Your task to perform on an android device: change notifications settings Image 0: 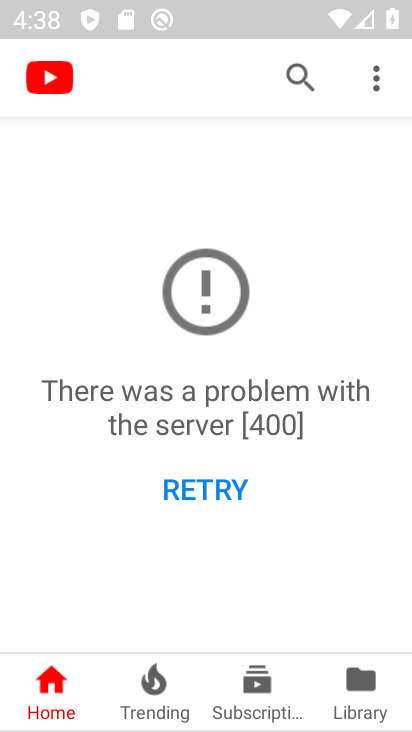
Step 0: press home button
Your task to perform on an android device: change notifications settings Image 1: 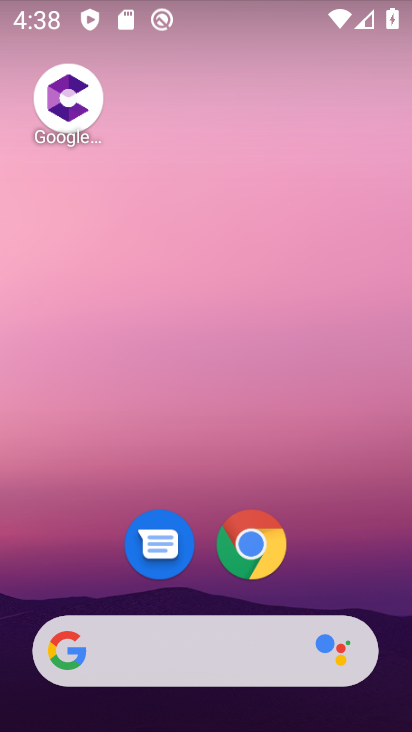
Step 1: drag from (389, 695) to (363, 162)
Your task to perform on an android device: change notifications settings Image 2: 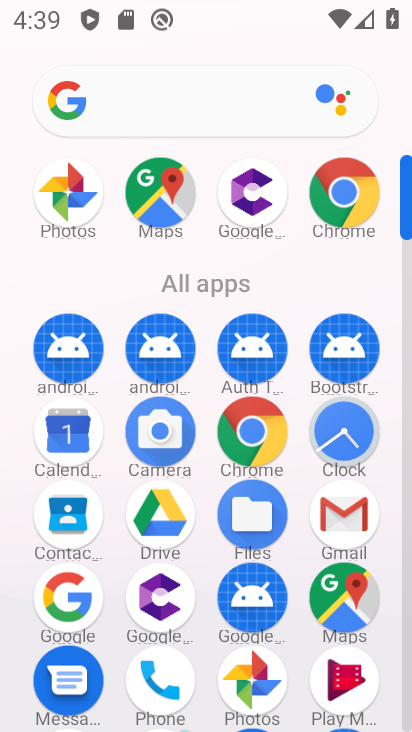
Step 2: drag from (197, 650) to (193, 320)
Your task to perform on an android device: change notifications settings Image 3: 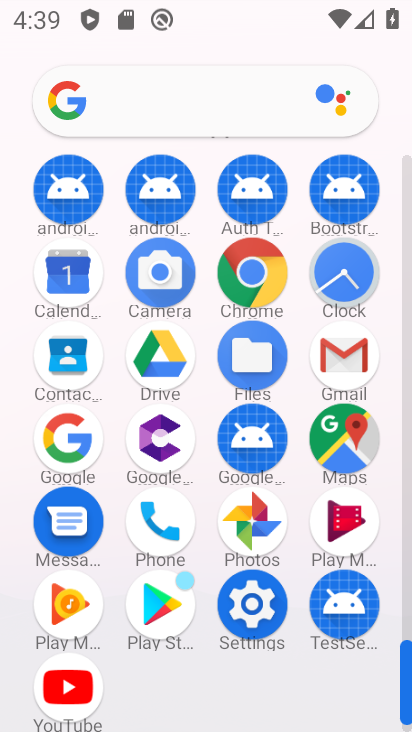
Step 3: click (253, 617)
Your task to perform on an android device: change notifications settings Image 4: 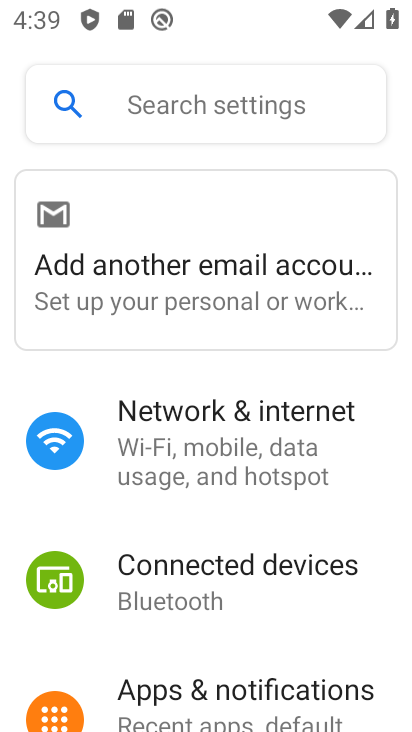
Step 4: click (211, 697)
Your task to perform on an android device: change notifications settings Image 5: 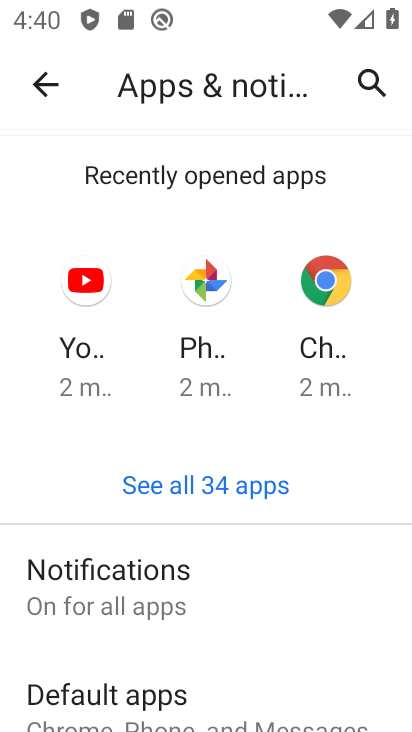
Step 5: click (143, 584)
Your task to perform on an android device: change notifications settings Image 6: 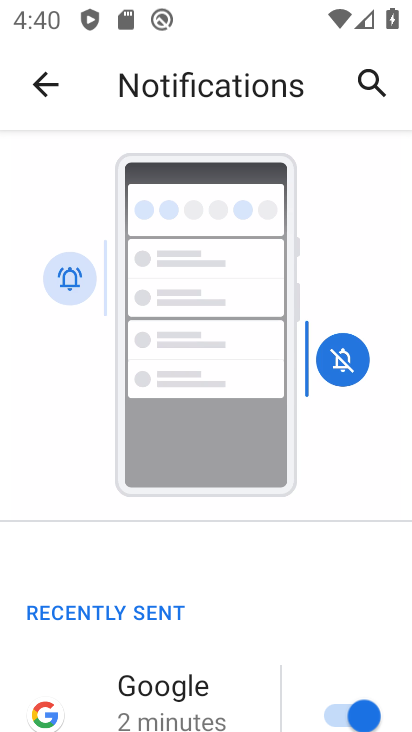
Step 6: drag from (237, 657) to (210, 321)
Your task to perform on an android device: change notifications settings Image 7: 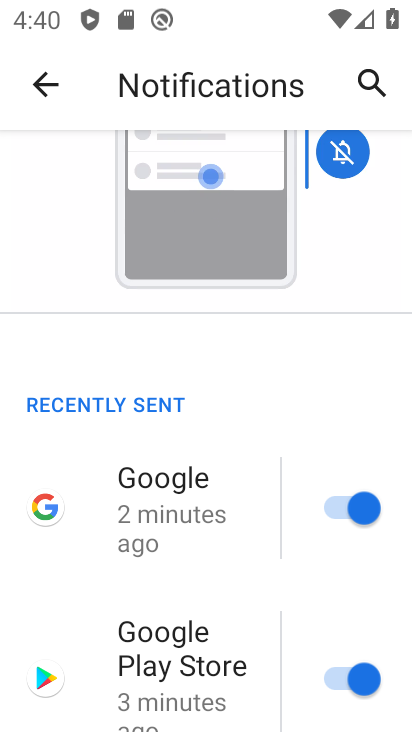
Step 7: drag from (231, 520) to (229, 402)
Your task to perform on an android device: change notifications settings Image 8: 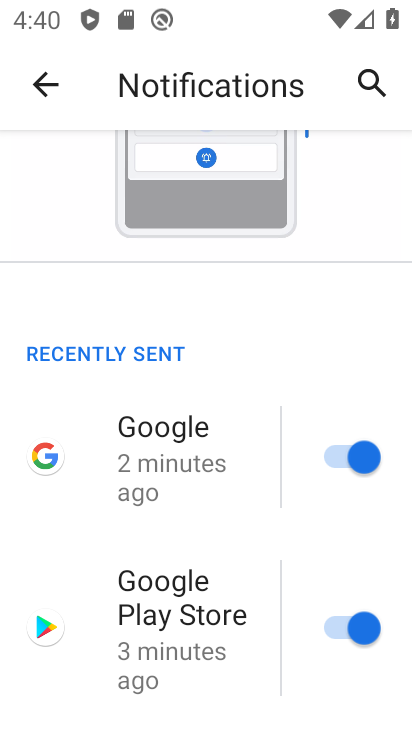
Step 8: drag from (243, 670) to (215, 299)
Your task to perform on an android device: change notifications settings Image 9: 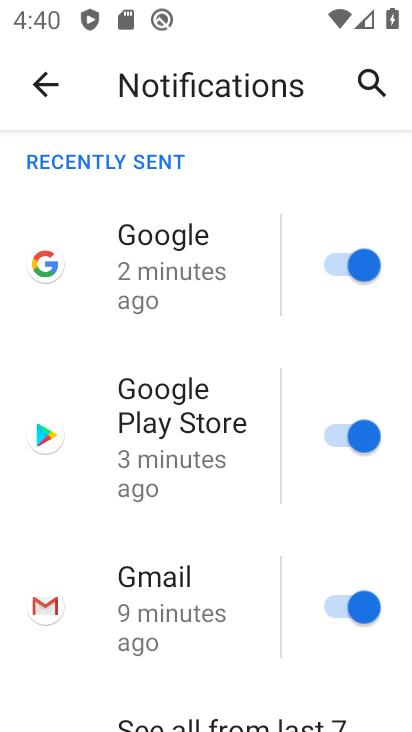
Step 9: drag from (225, 673) to (193, 320)
Your task to perform on an android device: change notifications settings Image 10: 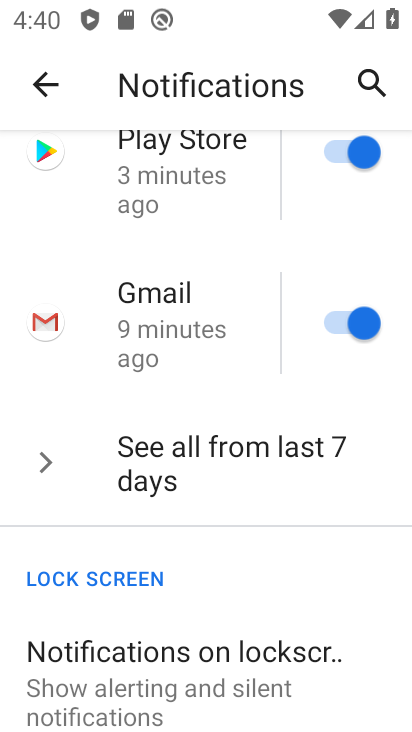
Step 10: click (120, 660)
Your task to perform on an android device: change notifications settings Image 11: 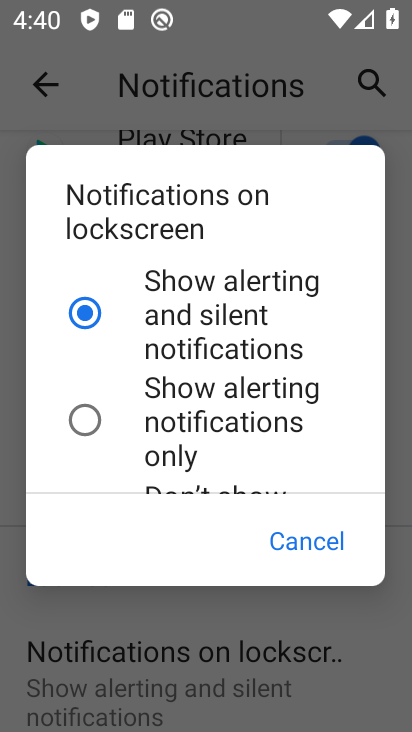
Step 11: press back button
Your task to perform on an android device: change notifications settings Image 12: 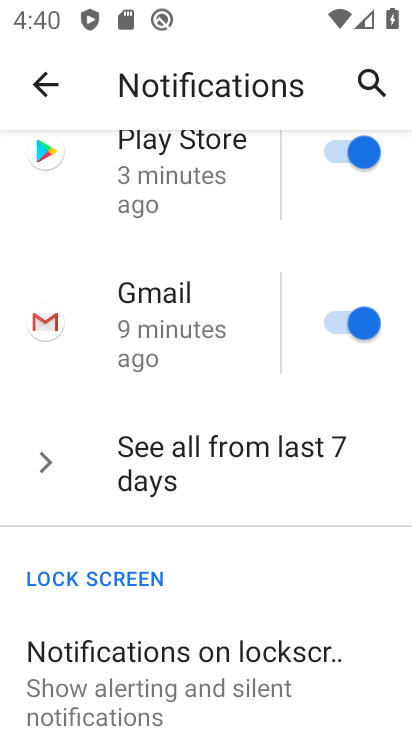
Step 12: drag from (202, 656) to (166, 212)
Your task to perform on an android device: change notifications settings Image 13: 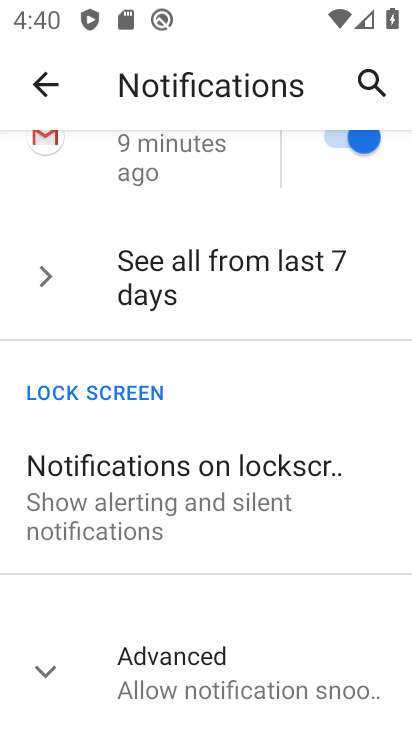
Step 13: click (29, 677)
Your task to perform on an android device: change notifications settings Image 14: 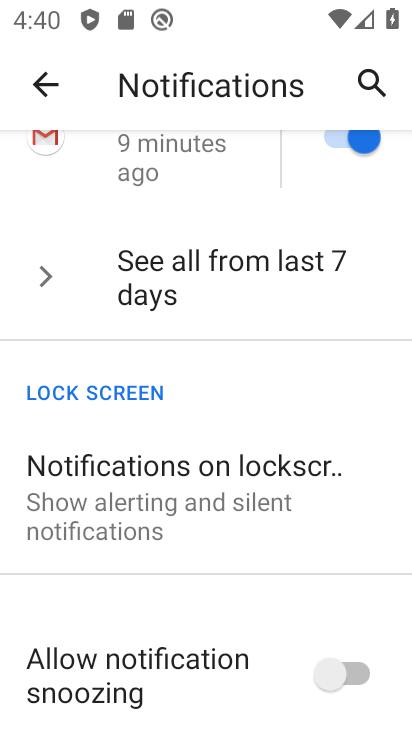
Step 14: task complete